Your task to perform on an android device: Add "bose quietcomfort 35" to the cart on newegg, then select checkout. Image 0: 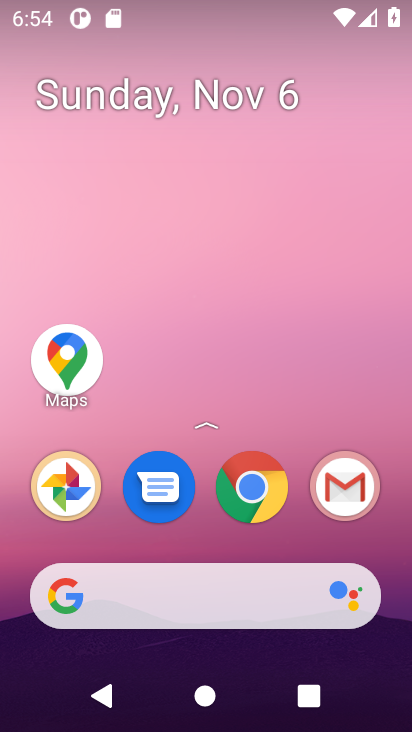
Step 0: click (251, 462)
Your task to perform on an android device: Add "bose quietcomfort 35" to the cart on newegg, then select checkout. Image 1: 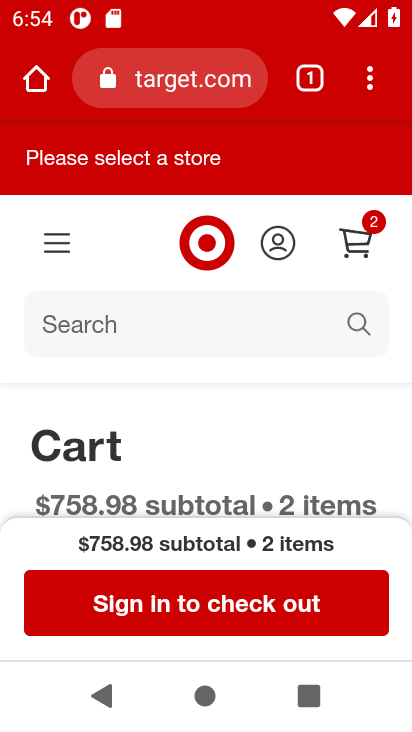
Step 1: click (185, 95)
Your task to perform on an android device: Add "bose quietcomfort 35" to the cart on newegg, then select checkout. Image 2: 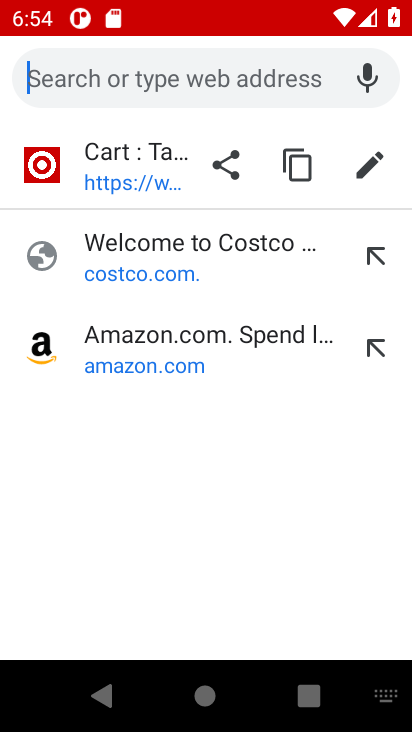
Step 2: type "newegg"
Your task to perform on an android device: Add "bose quietcomfort 35" to the cart on newegg, then select checkout. Image 3: 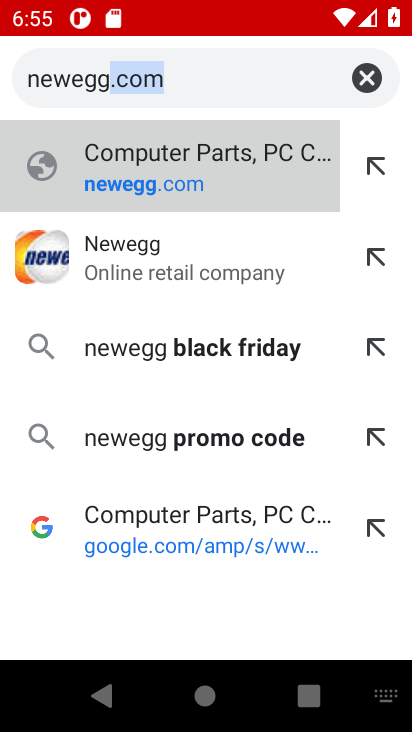
Step 3: click (72, 271)
Your task to perform on an android device: Add "bose quietcomfort 35" to the cart on newegg, then select checkout. Image 4: 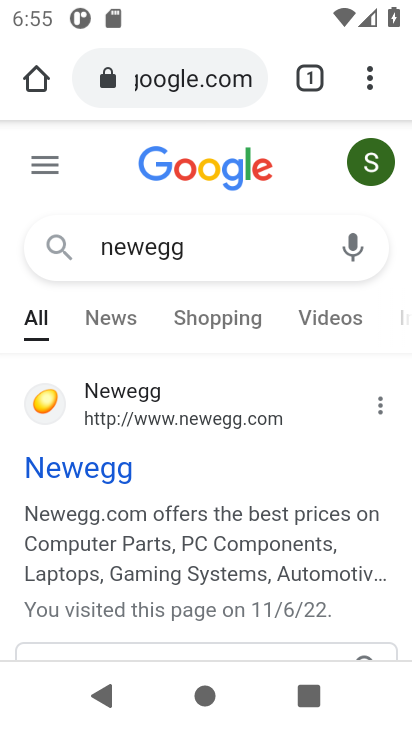
Step 4: click (80, 480)
Your task to perform on an android device: Add "bose quietcomfort 35" to the cart on newegg, then select checkout. Image 5: 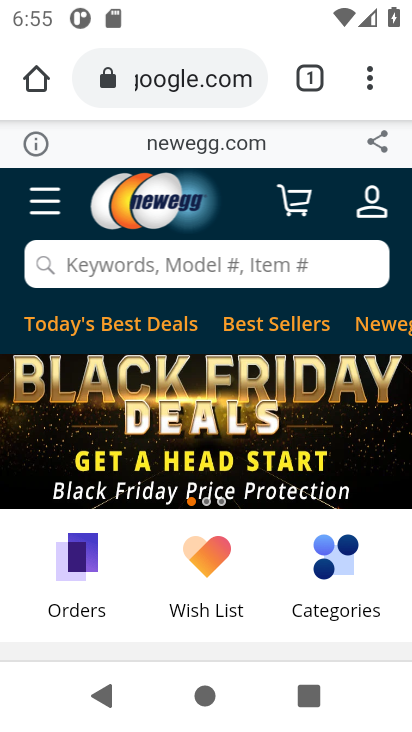
Step 5: click (160, 257)
Your task to perform on an android device: Add "bose quietcomfort 35" to the cart on newegg, then select checkout. Image 6: 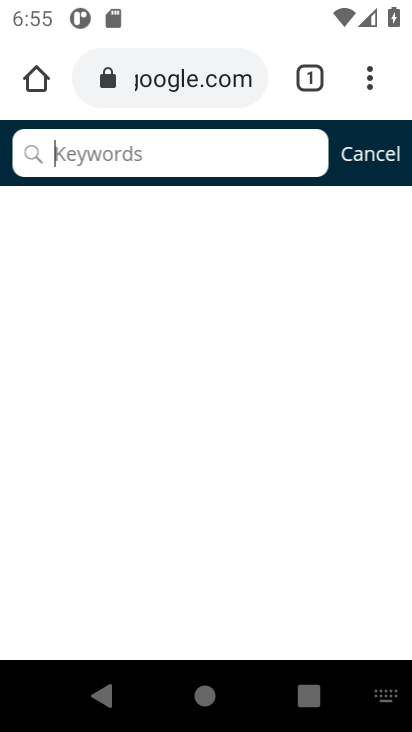
Step 6: type "bose quietcomfort 35"
Your task to perform on an android device: Add "bose quietcomfort 35" to the cart on newegg, then select checkout. Image 7: 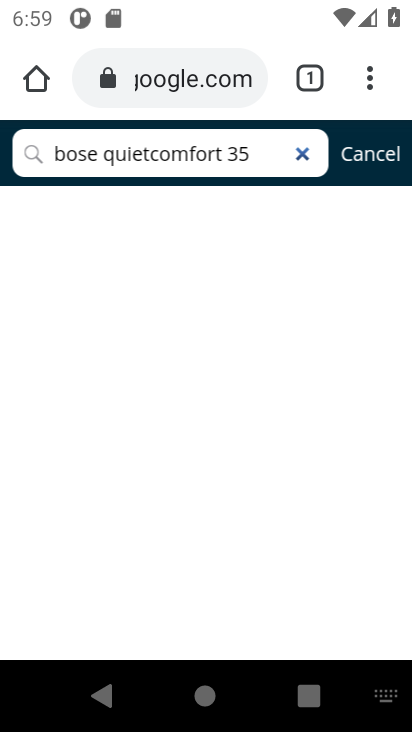
Step 7: task complete